Your task to perform on an android device: install app "Life360: Find Family & Friends" Image 0: 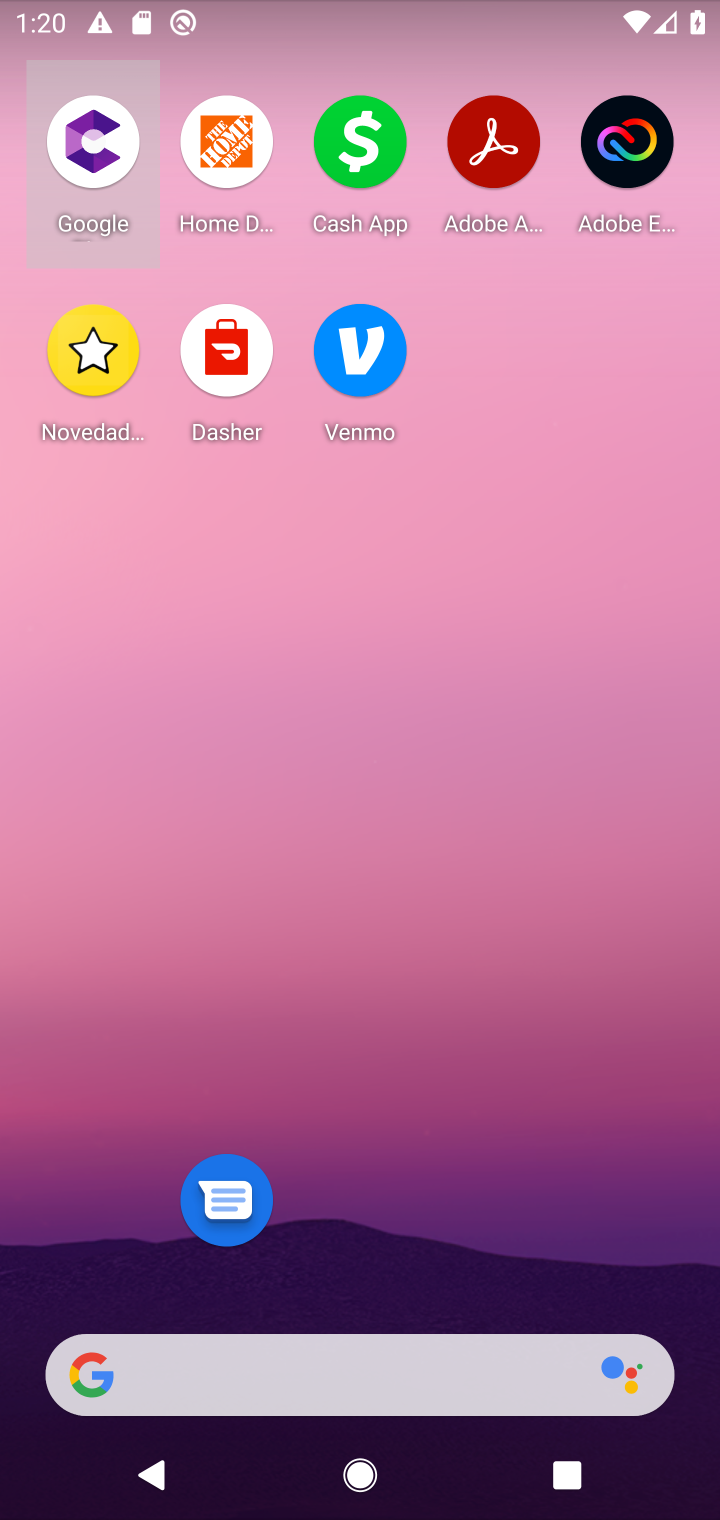
Step 0: drag from (522, 1185) to (572, 23)
Your task to perform on an android device: install app "Life360: Find Family & Friends" Image 1: 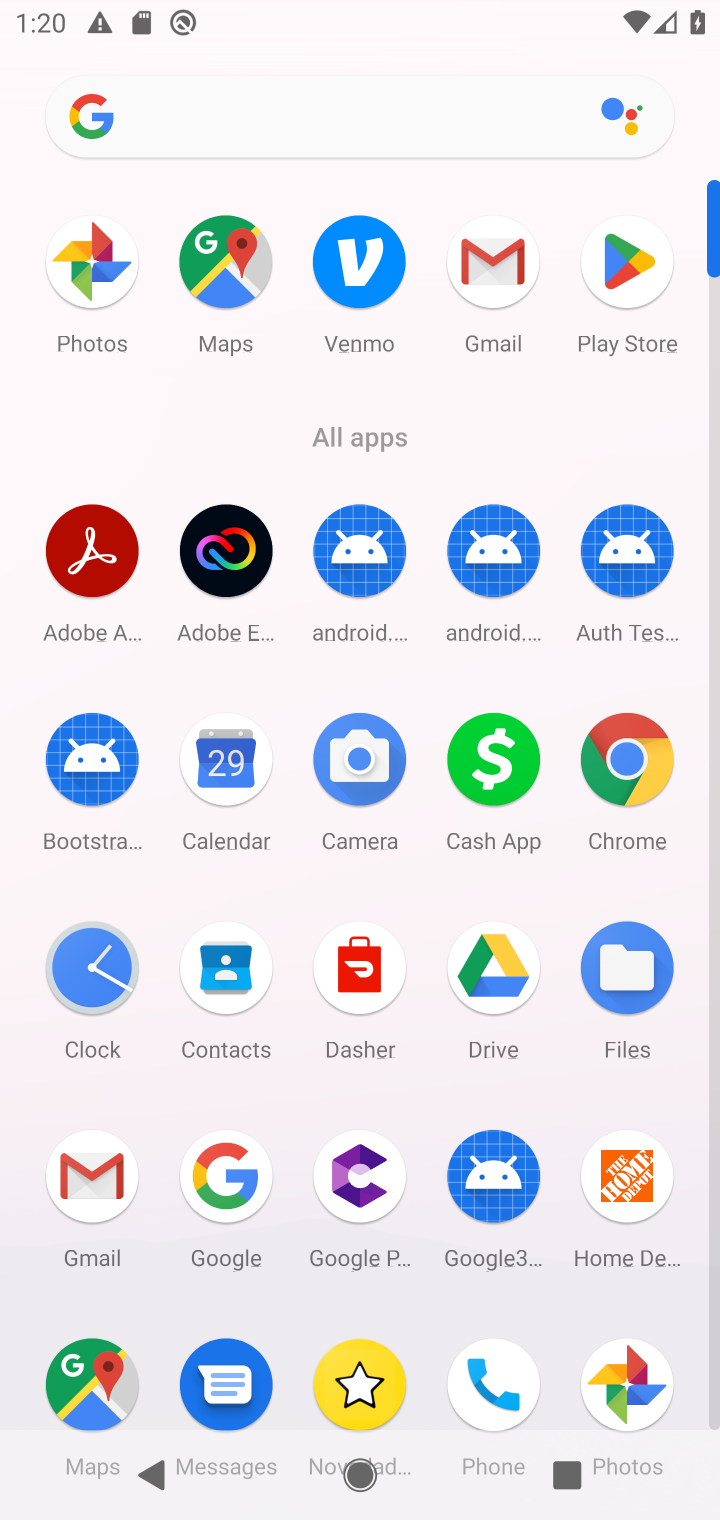
Step 1: click (634, 262)
Your task to perform on an android device: install app "Life360: Find Family & Friends" Image 2: 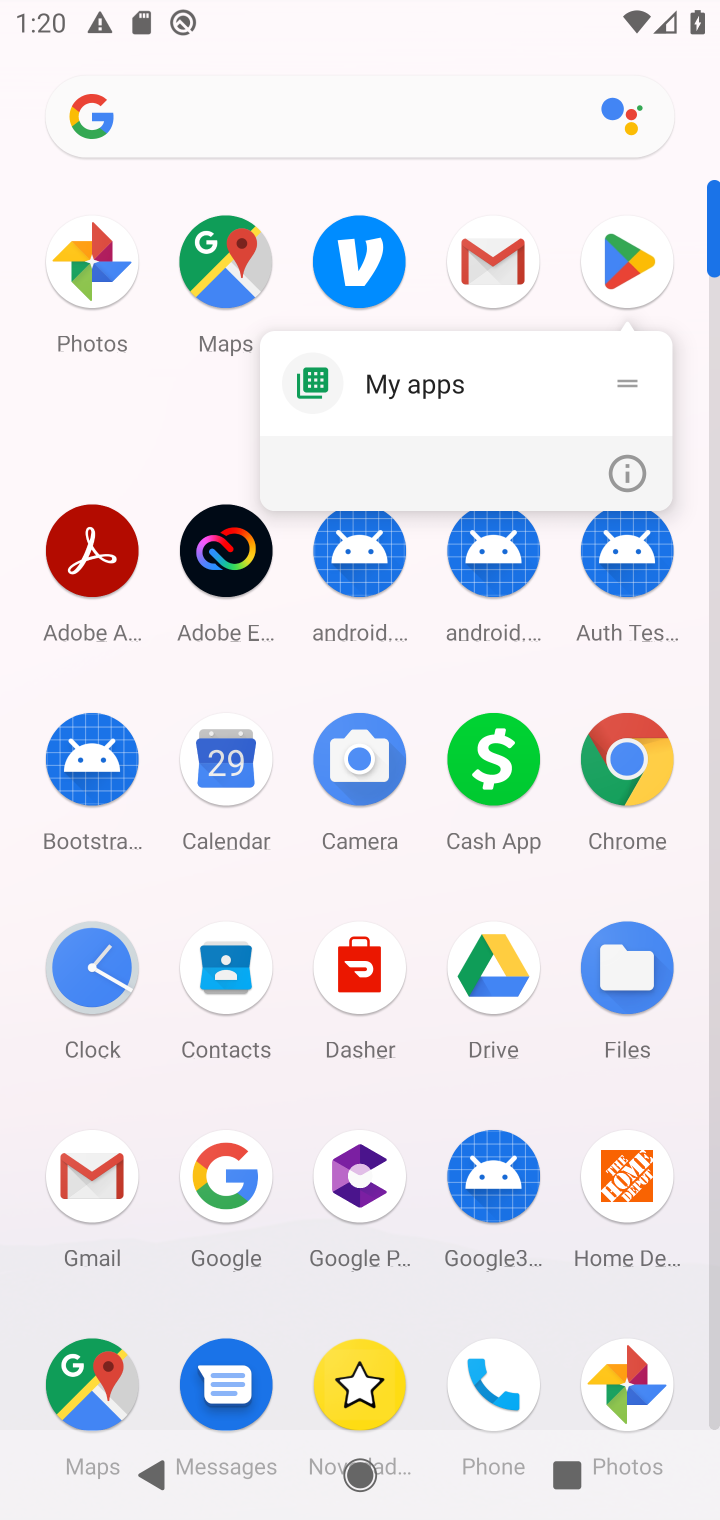
Step 2: click (626, 256)
Your task to perform on an android device: install app "Life360: Find Family & Friends" Image 3: 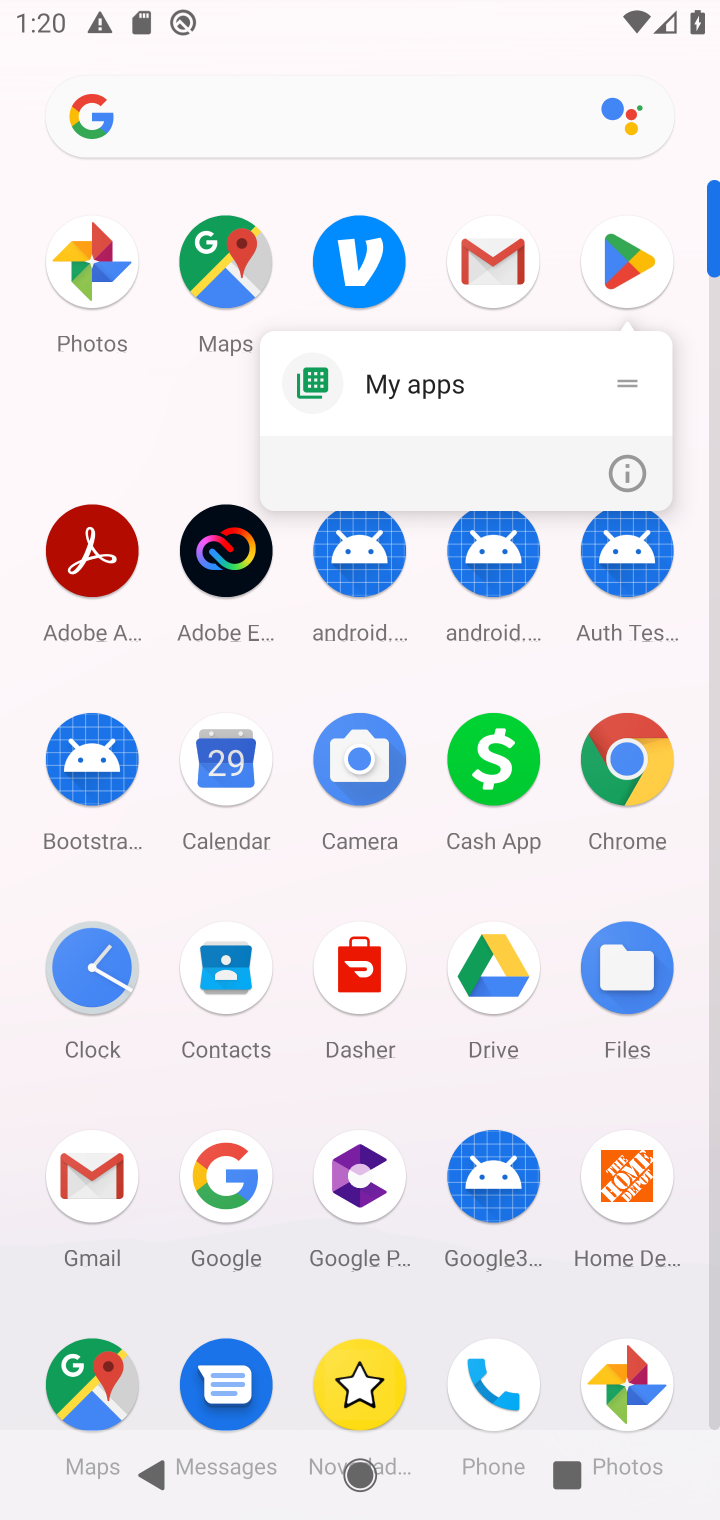
Step 3: click (626, 256)
Your task to perform on an android device: install app "Life360: Find Family & Friends" Image 4: 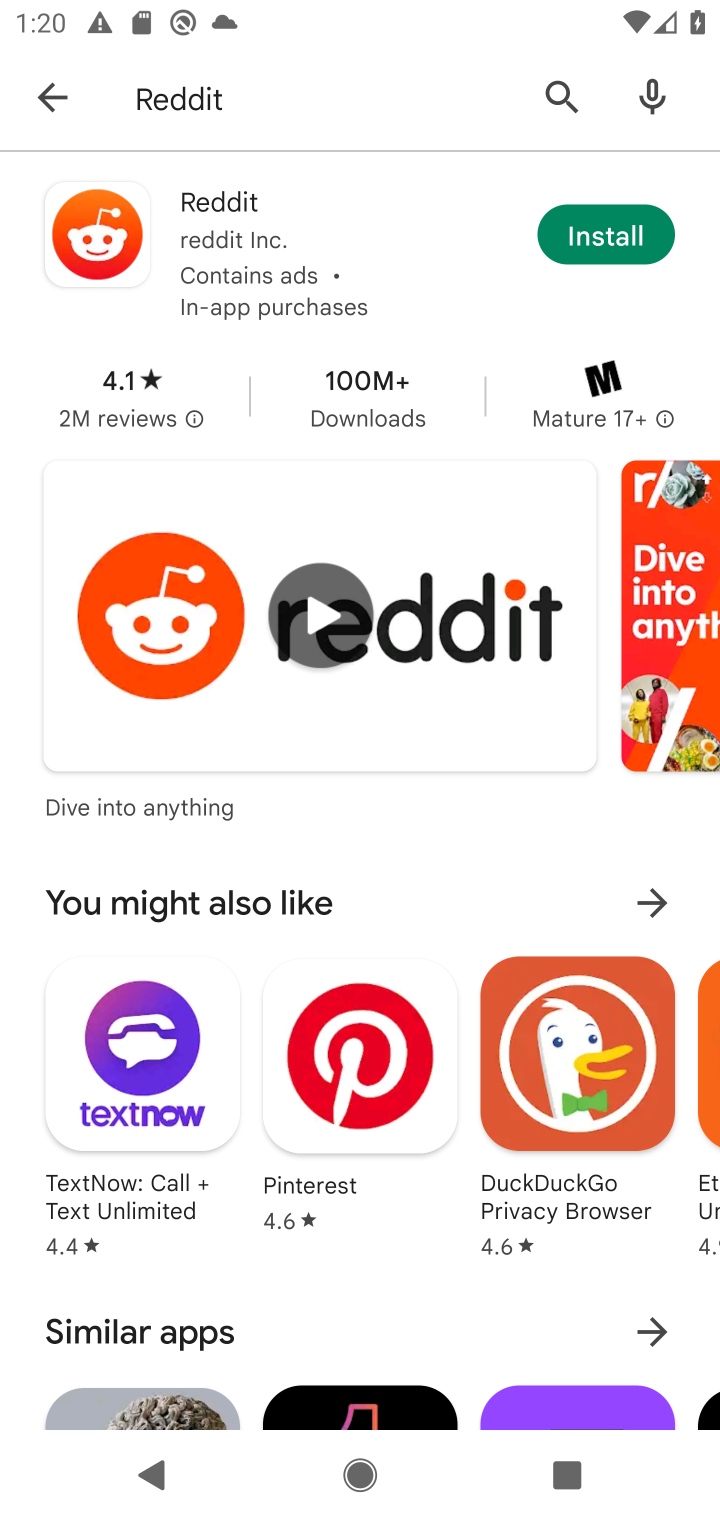
Step 4: click (265, 88)
Your task to perform on an android device: install app "Life360: Find Family & Friends" Image 5: 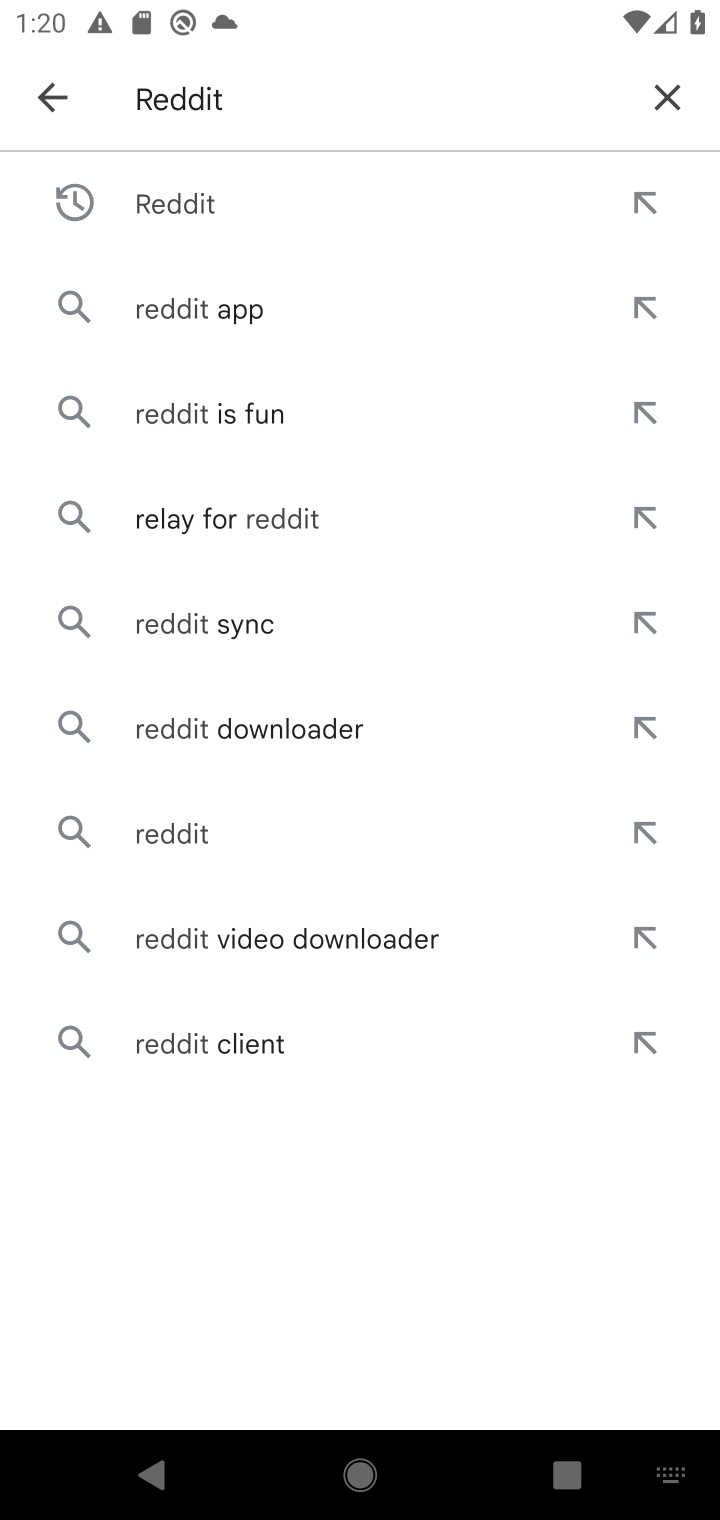
Step 5: click (674, 97)
Your task to perform on an android device: install app "Life360: Find Family & Friends" Image 6: 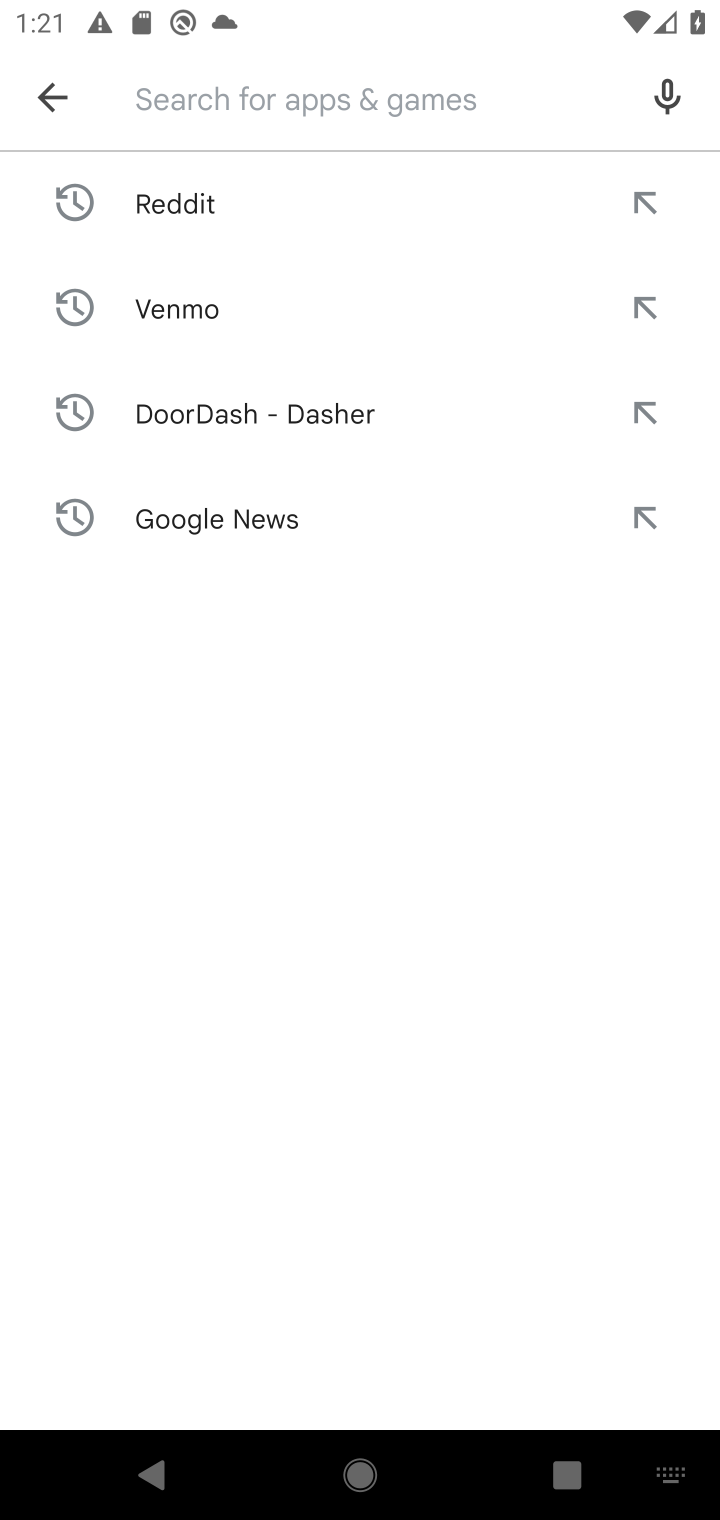
Step 6: type "Life360: Find Family & Friends"
Your task to perform on an android device: install app "Life360: Find Family & Friends" Image 7: 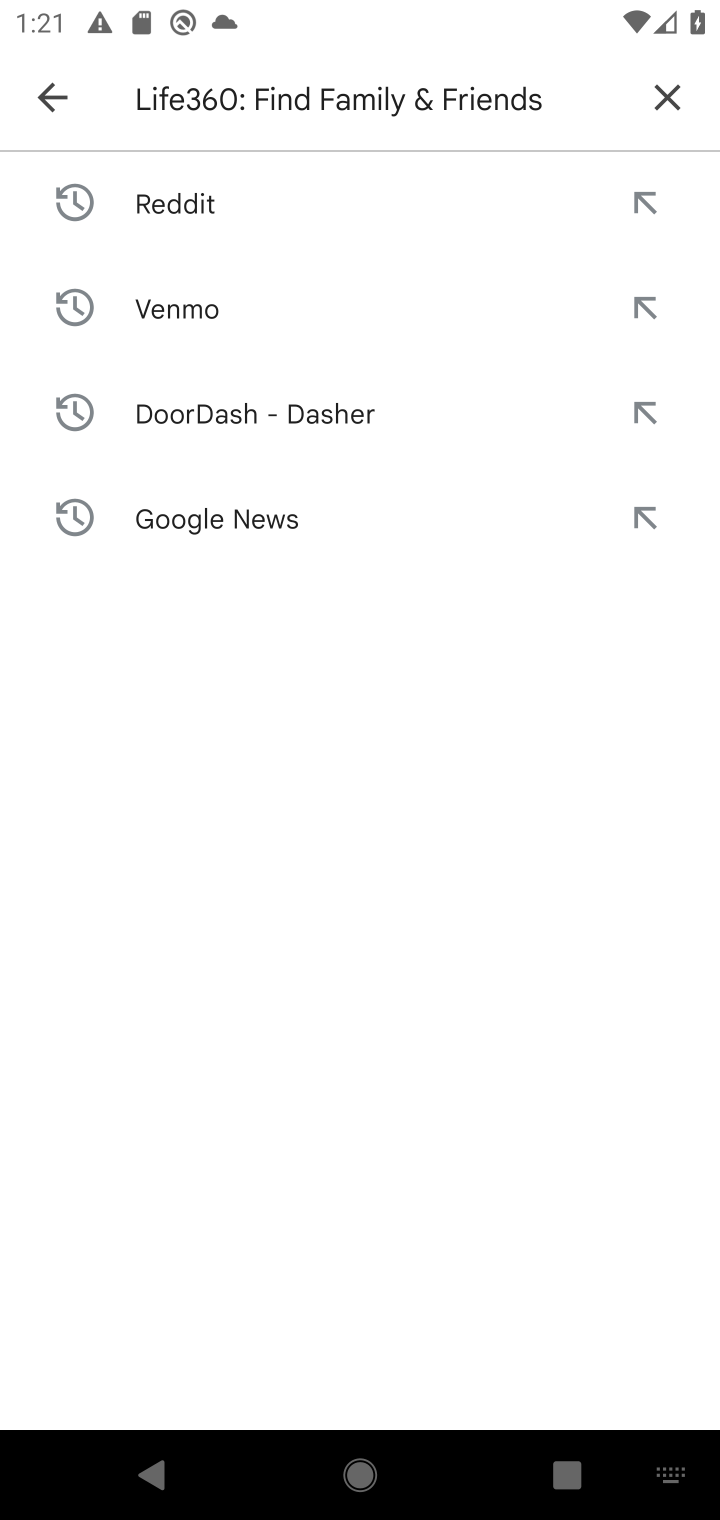
Step 7: press enter
Your task to perform on an android device: install app "Life360: Find Family & Friends" Image 8: 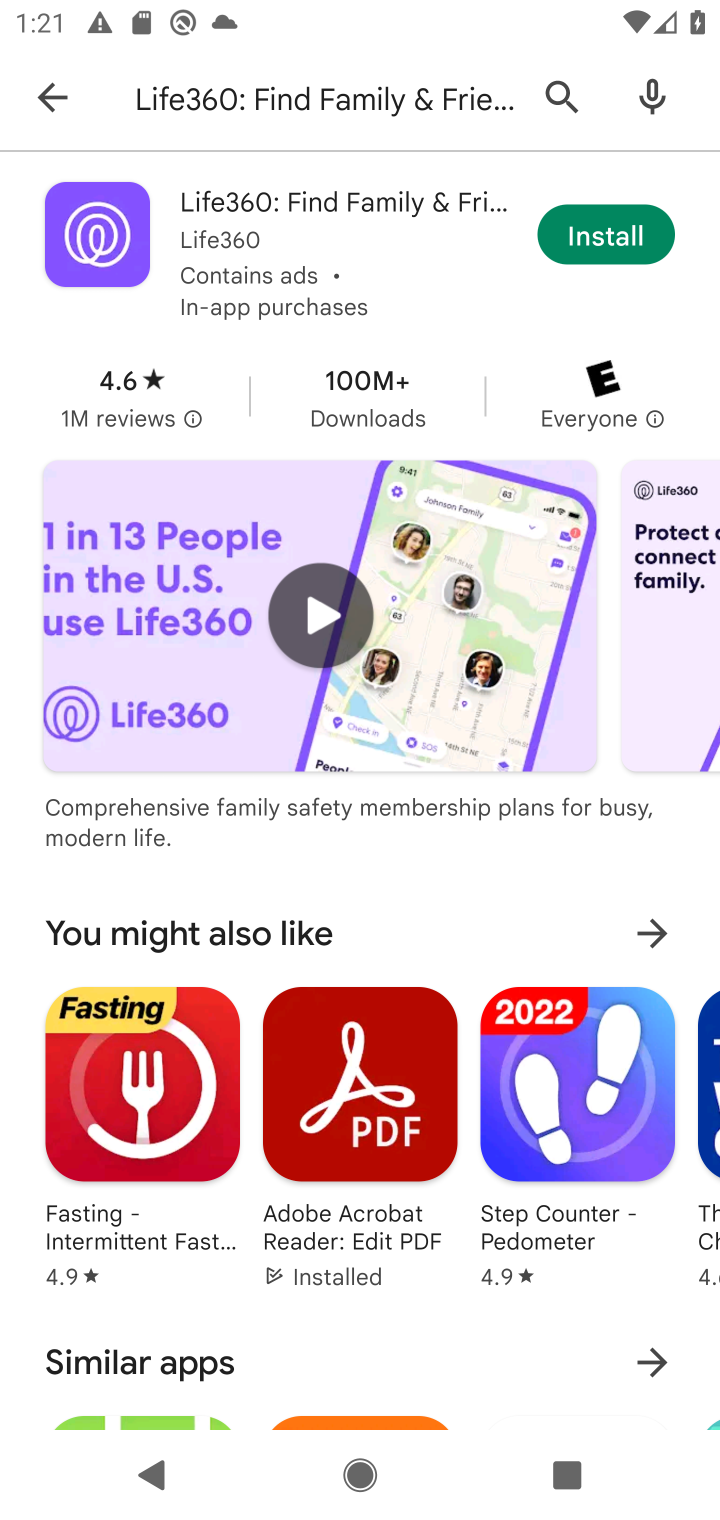
Step 8: click (627, 226)
Your task to perform on an android device: install app "Life360: Find Family & Friends" Image 9: 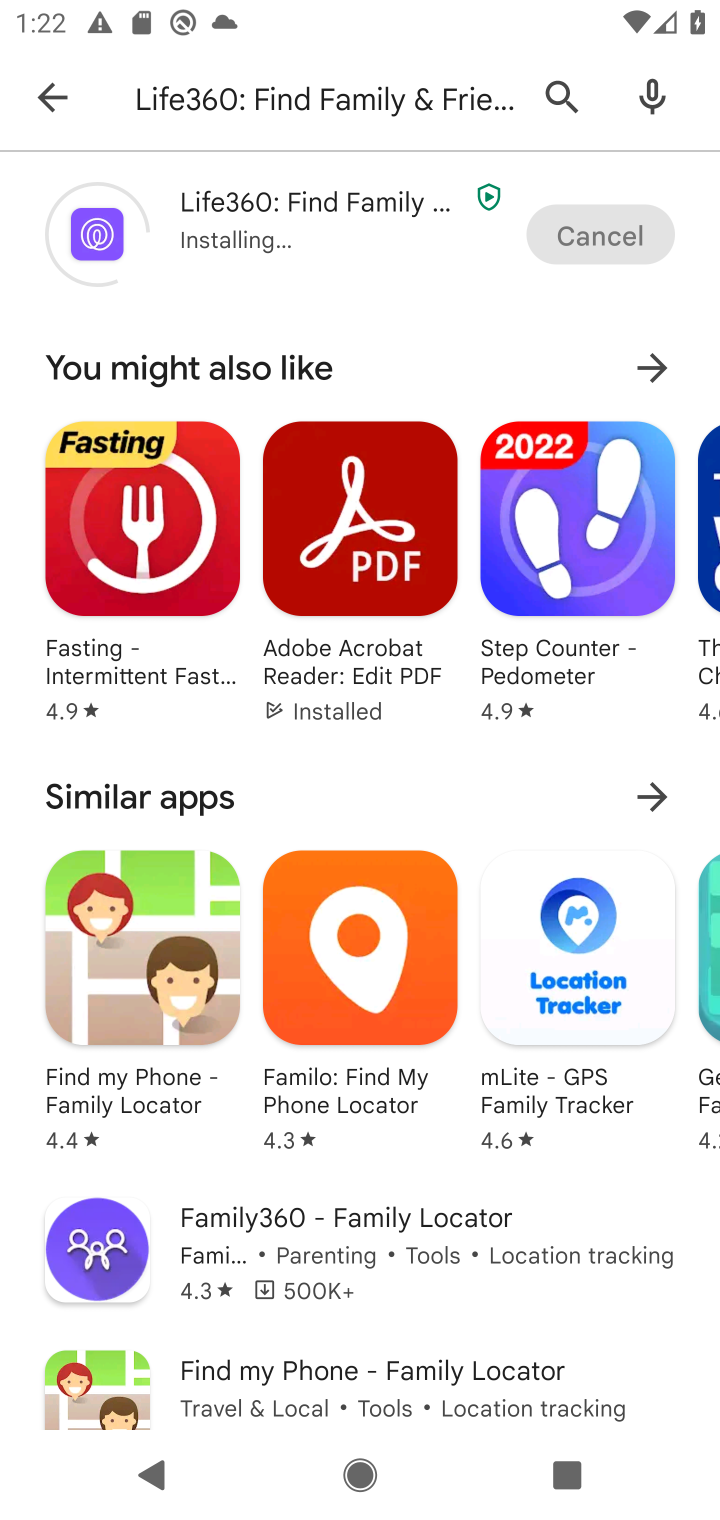
Step 9: task complete